Your task to perform on an android device: Open the calendar app, open the side menu, and click the "Day" option Image 0: 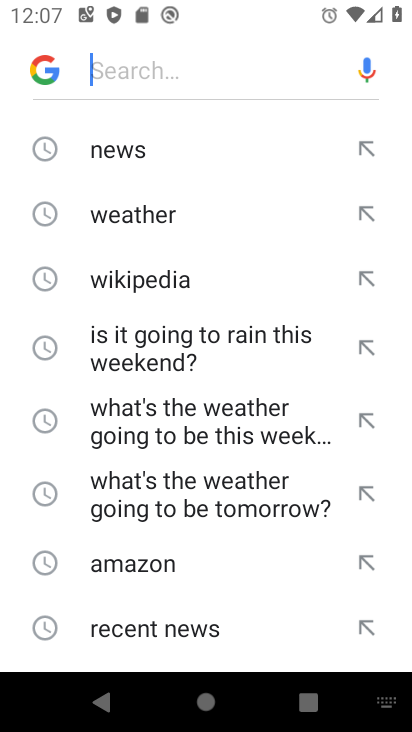
Step 0: click (185, 150)
Your task to perform on an android device: Open the calendar app, open the side menu, and click the "Day" option Image 1: 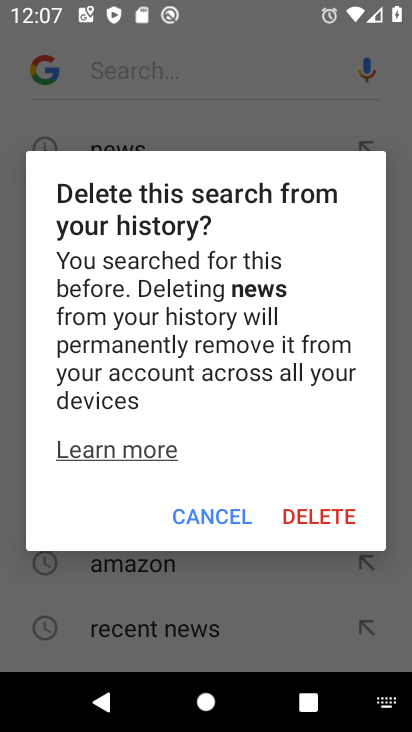
Step 1: click (164, 151)
Your task to perform on an android device: Open the calendar app, open the side menu, and click the "Day" option Image 2: 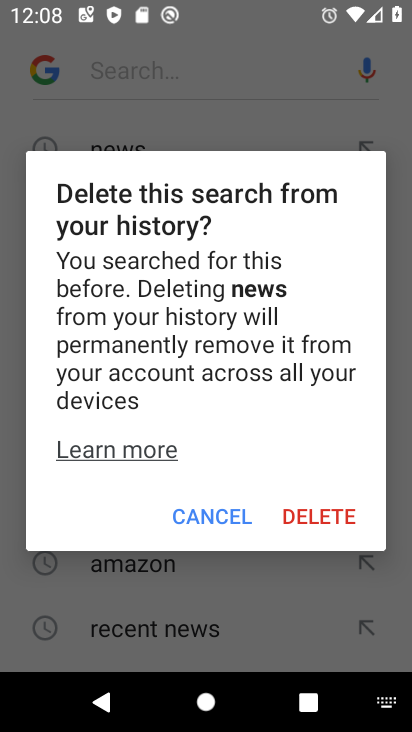
Step 2: press home button
Your task to perform on an android device: Open the calendar app, open the side menu, and click the "Day" option Image 3: 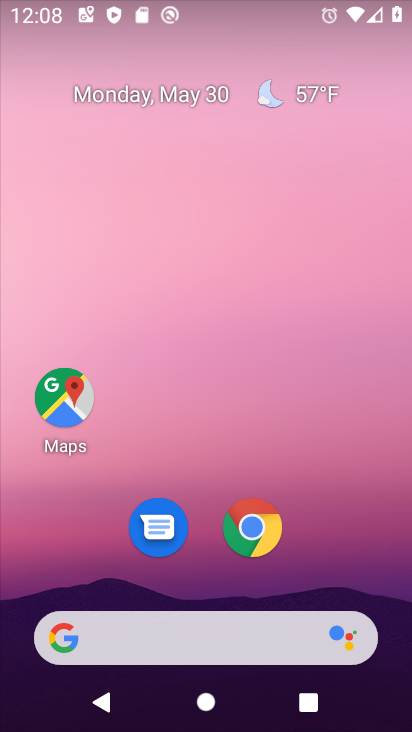
Step 3: click (173, 84)
Your task to perform on an android device: Open the calendar app, open the side menu, and click the "Day" option Image 4: 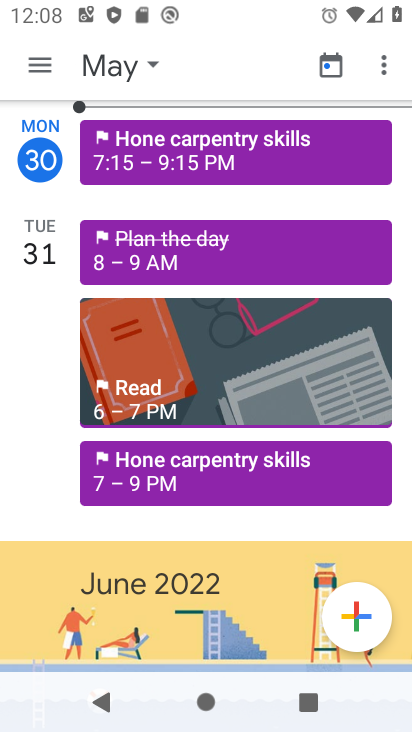
Step 4: click (52, 62)
Your task to perform on an android device: Open the calendar app, open the side menu, and click the "Day" option Image 5: 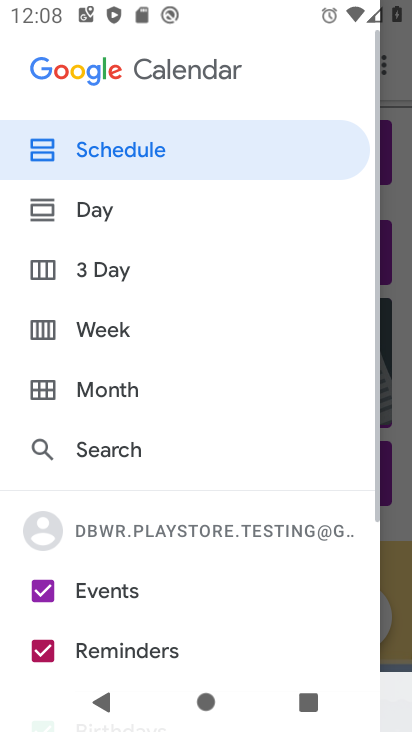
Step 5: click (204, 213)
Your task to perform on an android device: Open the calendar app, open the side menu, and click the "Day" option Image 6: 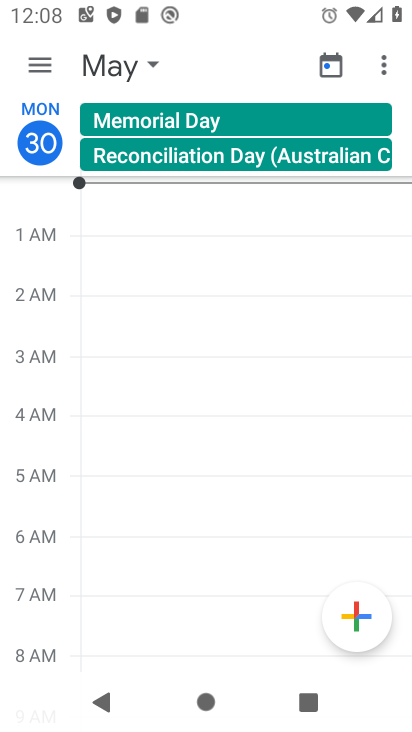
Step 6: click (41, 61)
Your task to perform on an android device: Open the calendar app, open the side menu, and click the "Day" option Image 7: 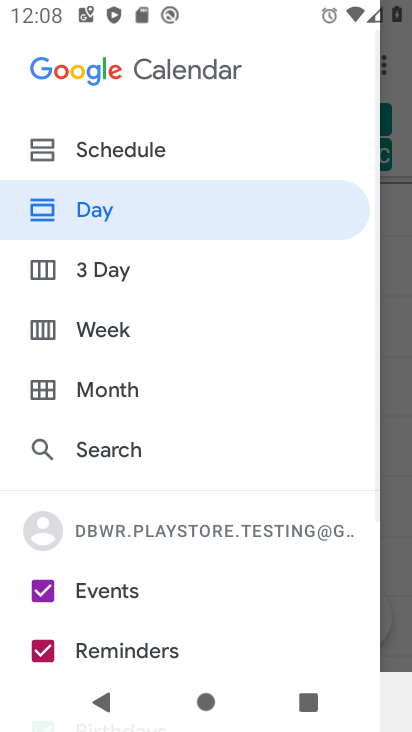
Step 7: task complete